Your task to perform on an android device: Open Google Chrome and click the shortcut for Amazon.com Image 0: 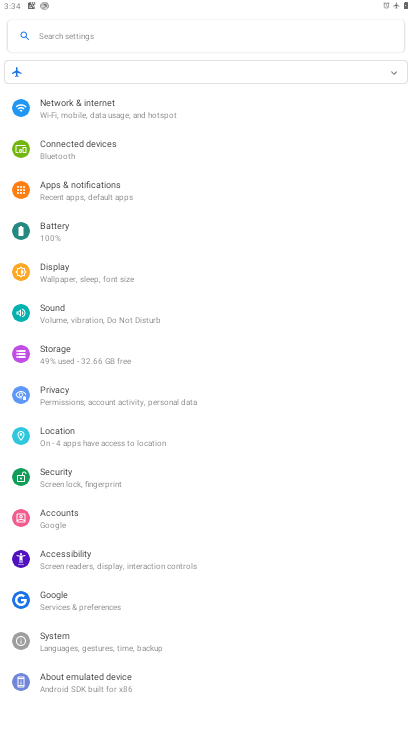
Step 0: press home button
Your task to perform on an android device: Open Google Chrome and click the shortcut for Amazon.com Image 1: 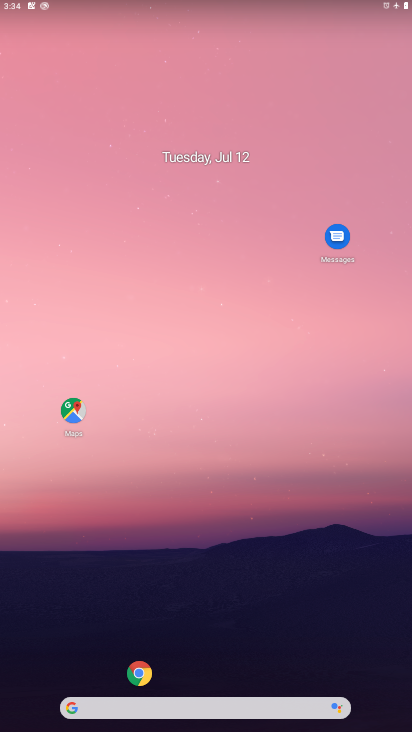
Step 1: click (147, 670)
Your task to perform on an android device: Open Google Chrome and click the shortcut for Amazon.com Image 2: 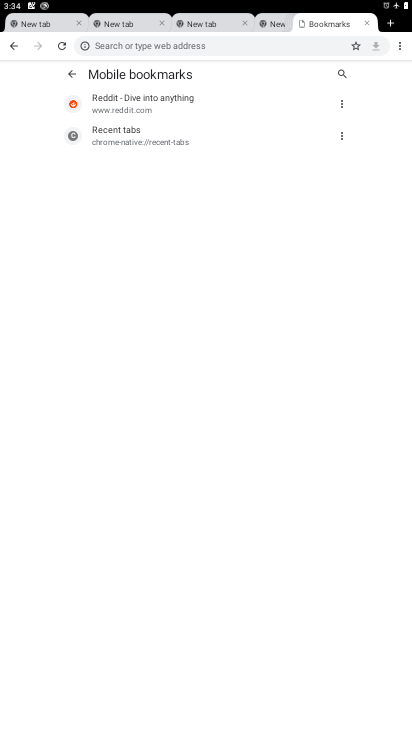
Step 2: click (20, 22)
Your task to perform on an android device: Open Google Chrome and click the shortcut for Amazon.com Image 3: 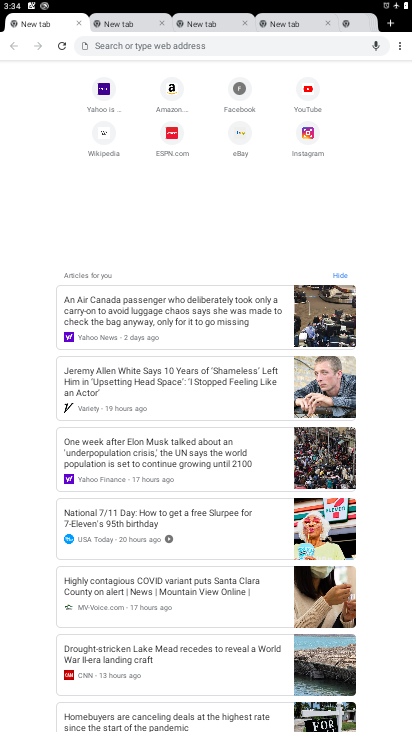
Step 3: click (176, 93)
Your task to perform on an android device: Open Google Chrome and click the shortcut for Amazon.com Image 4: 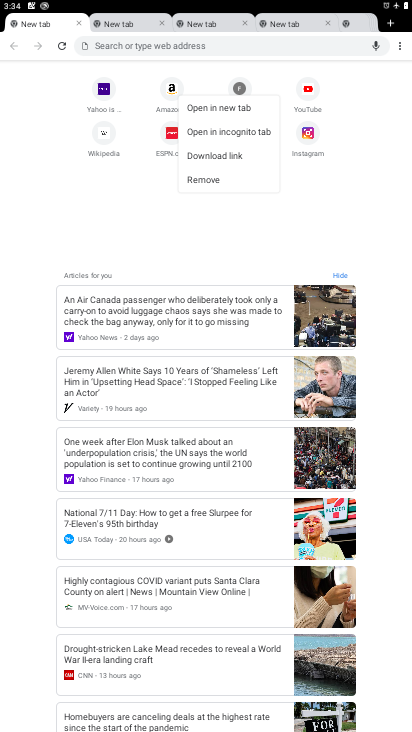
Step 4: click (170, 91)
Your task to perform on an android device: Open Google Chrome and click the shortcut for Amazon.com Image 5: 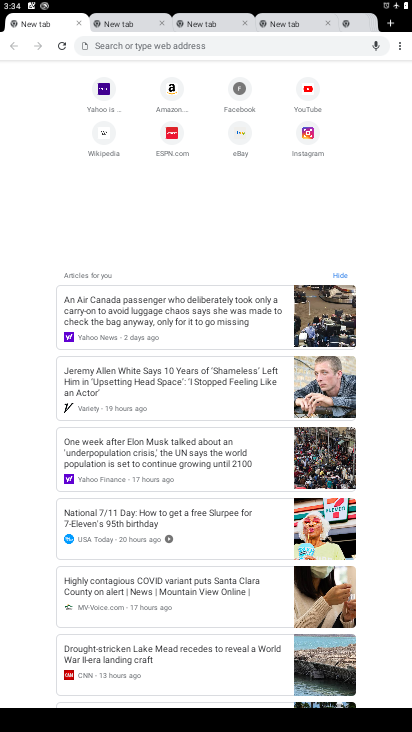
Step 5: click (175, 96)
Your task to perform on an android device: Open Google Chrome and click the shortcut for Amazon.com Image 6: 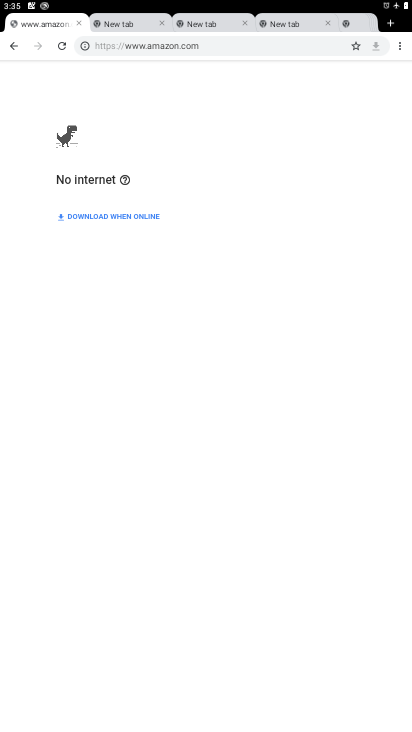
Step 6: task complete